Your task to perform on an android device: Open sound settings Image 0: 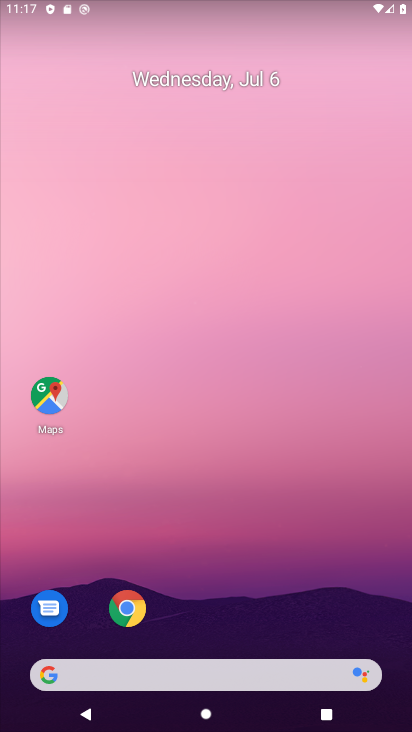
Step 0: drag from (272, 716) to (198, 131)
Your task to perform on an android device: Open sound settings Image 1: 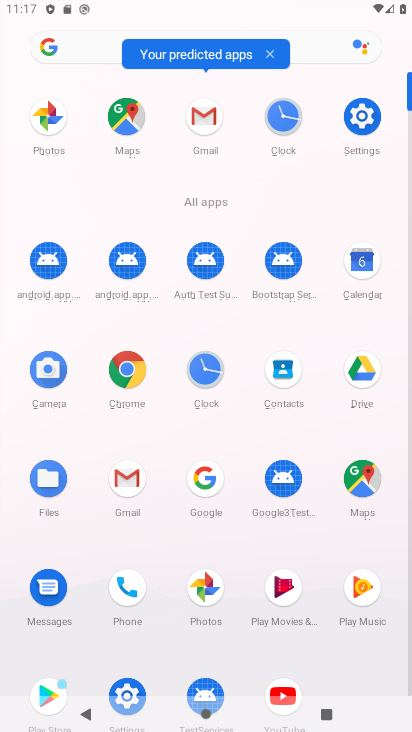
Step 1: click (192, 104)
Your task to perform on an android device: Open sound settings Image 2: 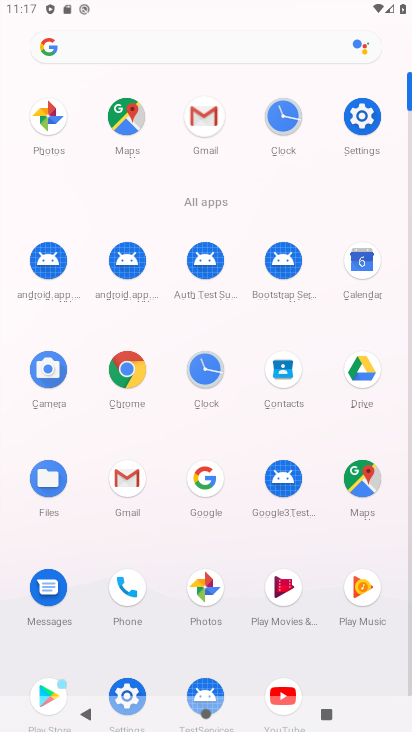
Step 2: click (363, 117)
Your task to perform on an android device: Open sound settings Image 3: 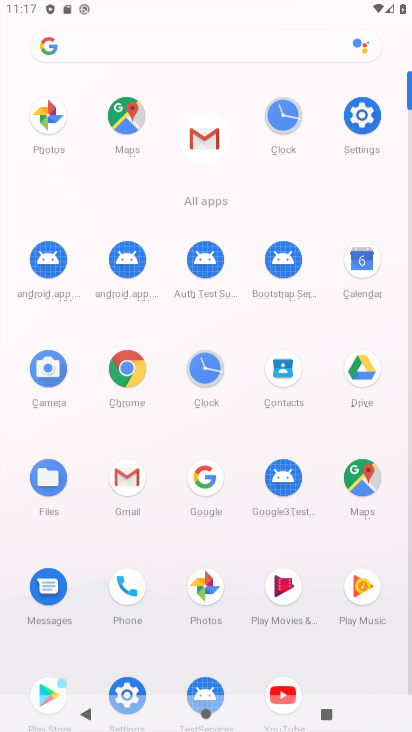
Step 3: click (363, 117)
Your task to perform on an android device: Open sound settings Image 4: 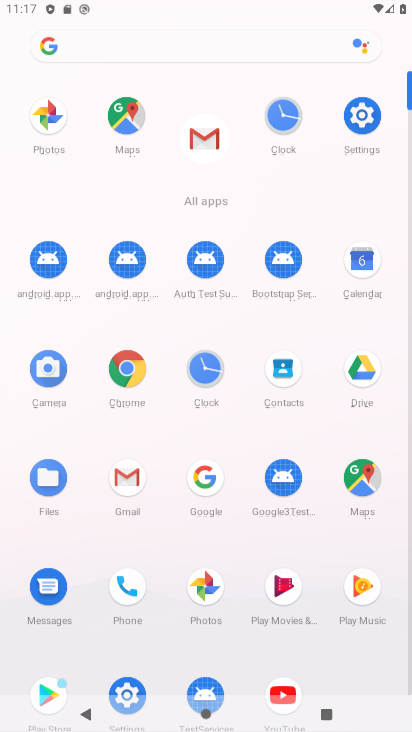
Step 4: click (363, 117)
Your task to perform on an android device: Open sound settings Image 5: 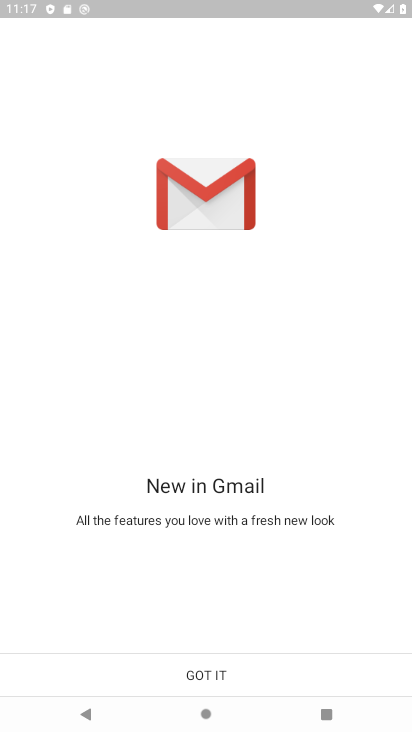
Step 5: press back button
Your task to perform on an android device: Open sound settings Image 6: 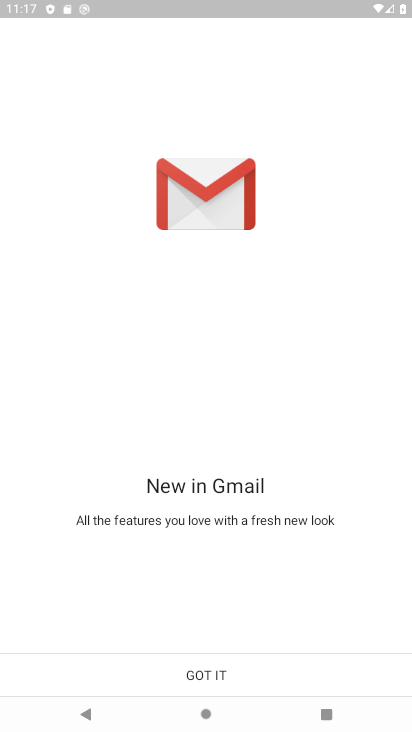
Step 6: press back button
Your task to perform on an android device: Open sound settings Image 7: 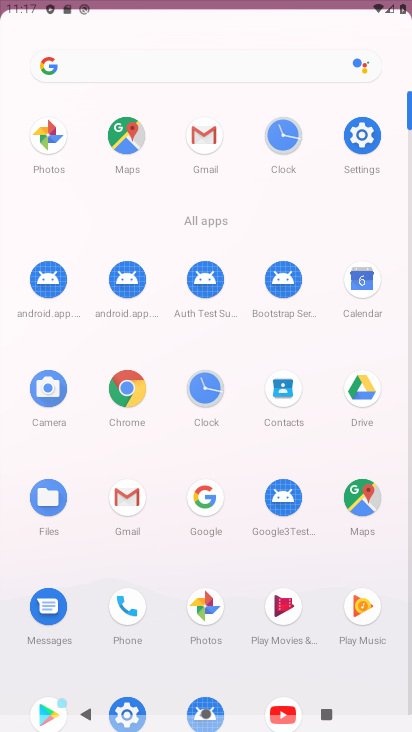
Step 7: press back button
Your task to perform on an android device: Open sound settings Image 8: 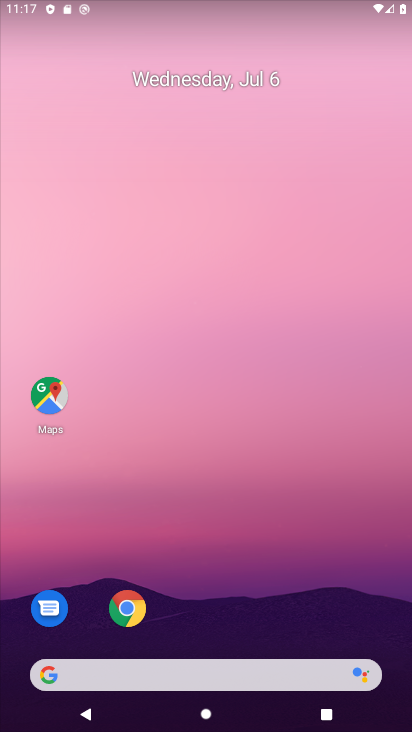
Step 8: drag from (244, 690) to (195, 83)
Your task to perform on an android device: Open sound settings Image 9: 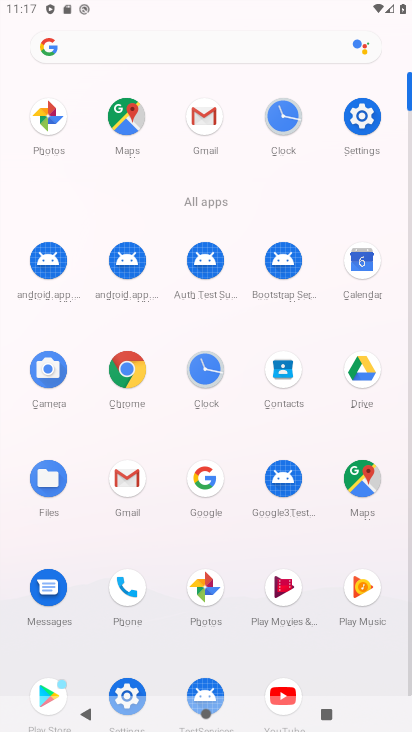
Step 9: click (349, 118)
Your task to perform on an android device: Open sound settings Image 10: 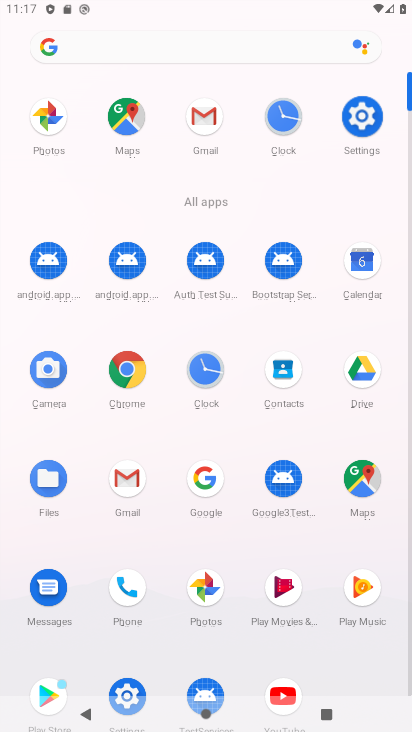
Step 10: click (351, 121)
Your task to perform on an android device: Open sound settings Image 11: 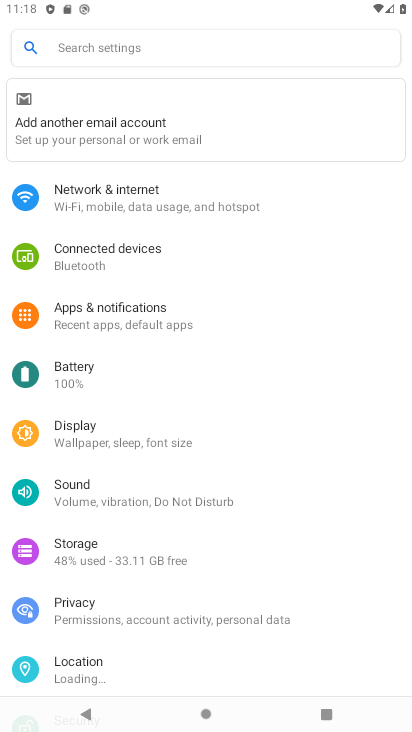
Step 11: click (74, 489)
Your task to perform on an android device: Open sound settings Image 12: 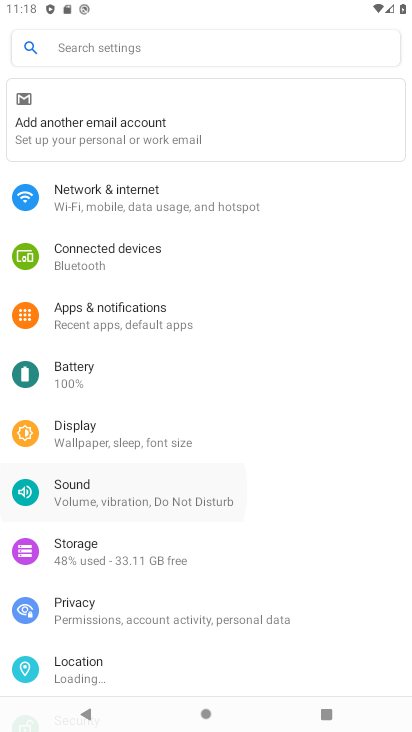
Step 12: click (73, 489)
Your task to perform on an android device: Open sound settings Image 13: 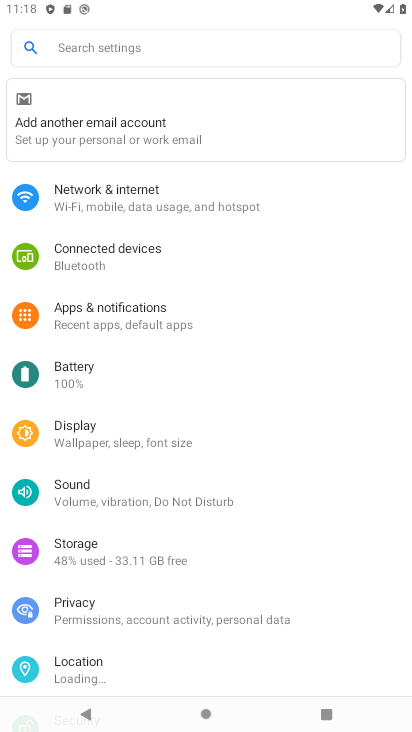
Step 13: click (72, 490)
Your task to perform on an android device: Open sound settings Image 14: 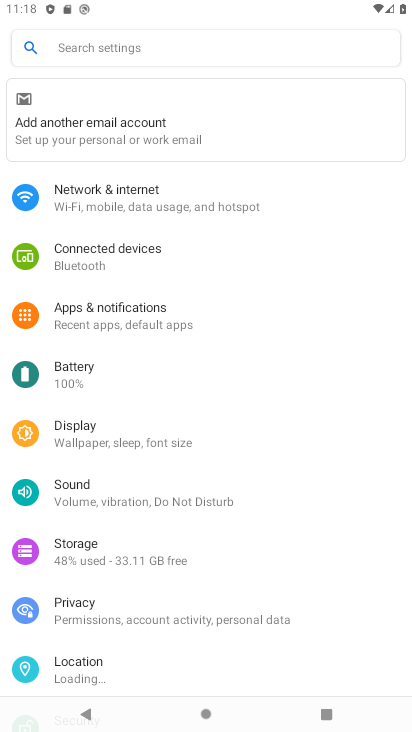
Step 14: click (72, 490)
Your task to perform on an android device: Open sound settings Image 15: 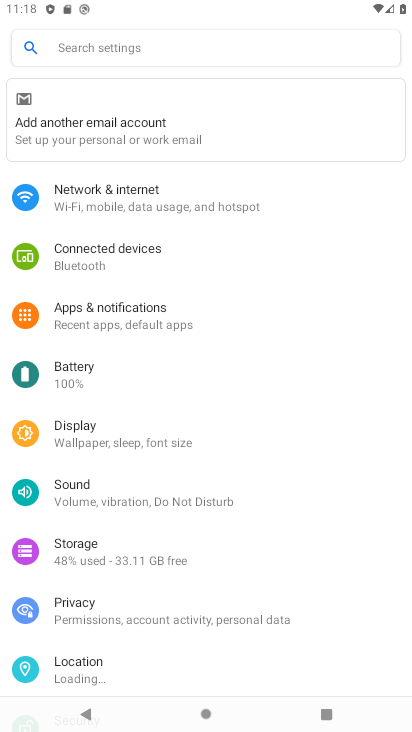
Step 15: click (72, 490)
Your task to perform on an android device: Open sound settings Image 16: 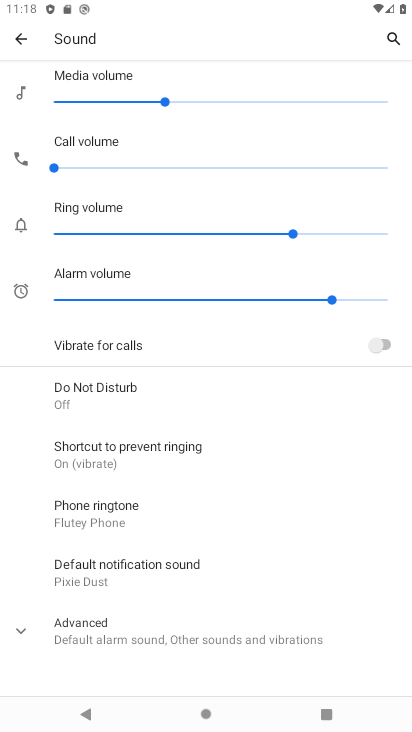
Step 16: task complete